Your task to perform on an android device: toggle show notifications on the lock screen Image 0: 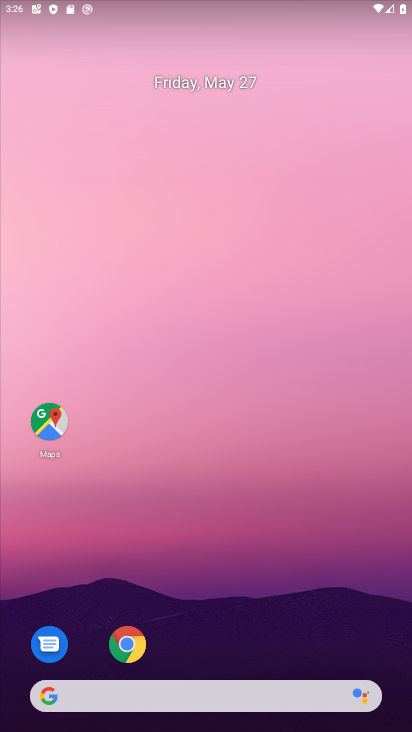
Step 0: drag from (266, 294) to (178, 19)
Your task to perform on an android device: toggle show notifications on the lock screen Image 1: 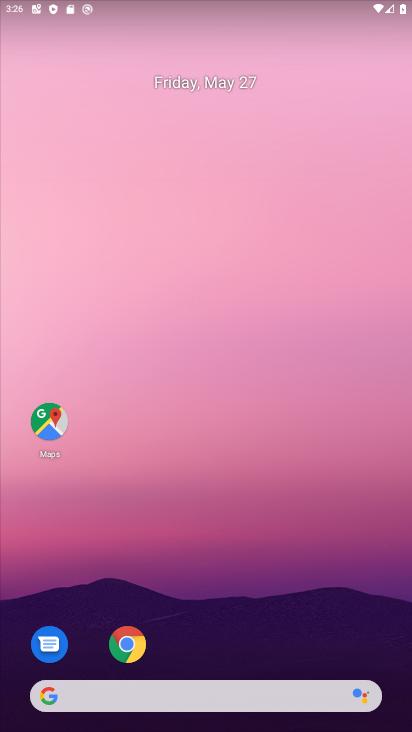
Step 1: drag from (254, 604) to (138, 63)
Your task to perform on an android device: toggle show notifications on the lock screen Image 2: 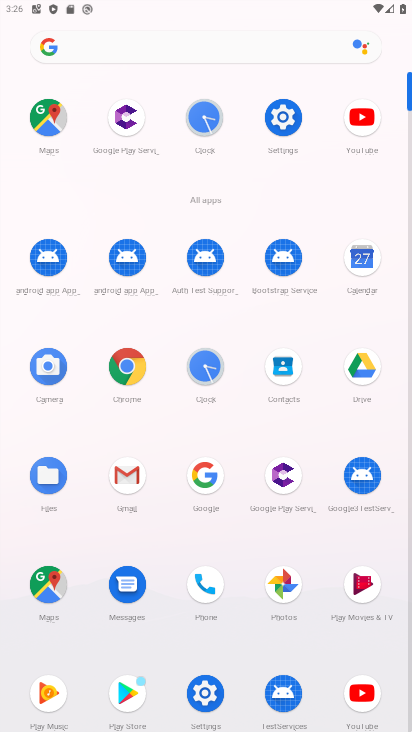
Step 2: click (293, 109)
Your task to perform on an android device: toggle show notifications on the lock screen Image 3: 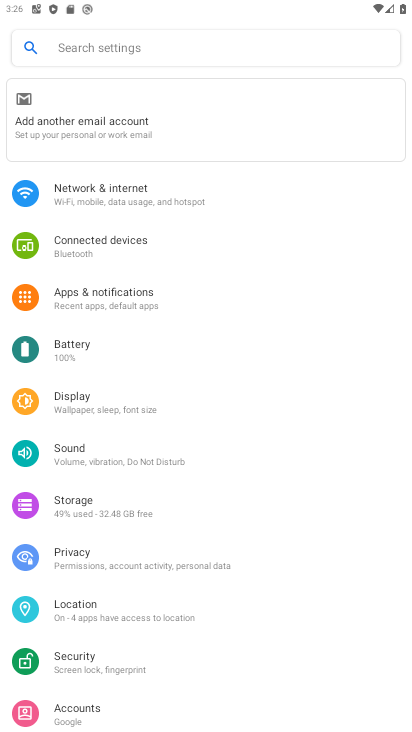
Step 3: click (149, 300)
Your task to perform on an android device: toggle show notifications on the lock screen Image 4: 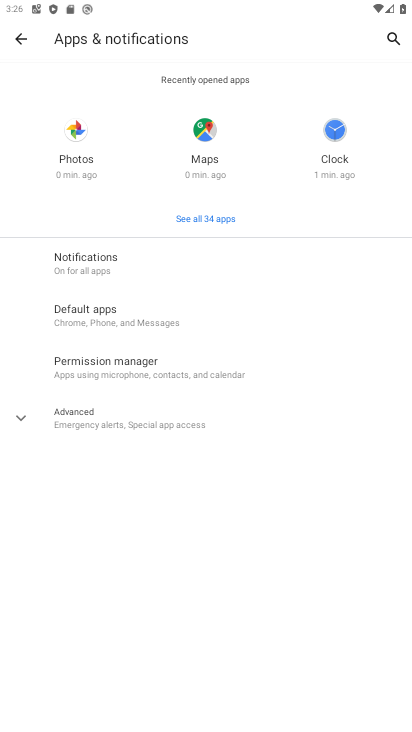
Step 4: click (134, 273)
Your task to perform on an android device: toggle show notifications on the lock screen Image 5: 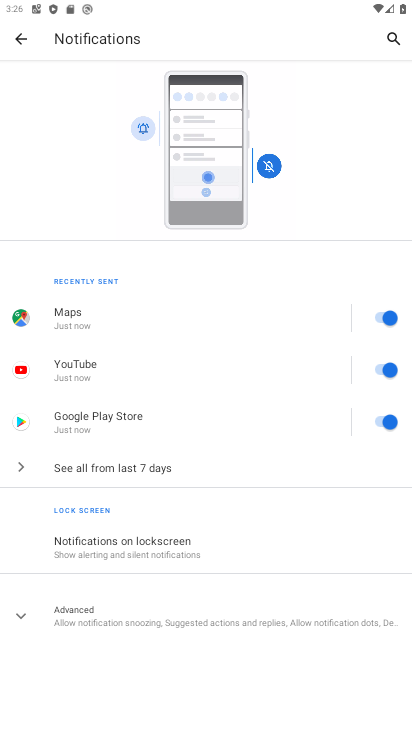
Step 5: click (217, 546)
Your task to perform on an android device: toggle show notifications on the lock screen Image 6: 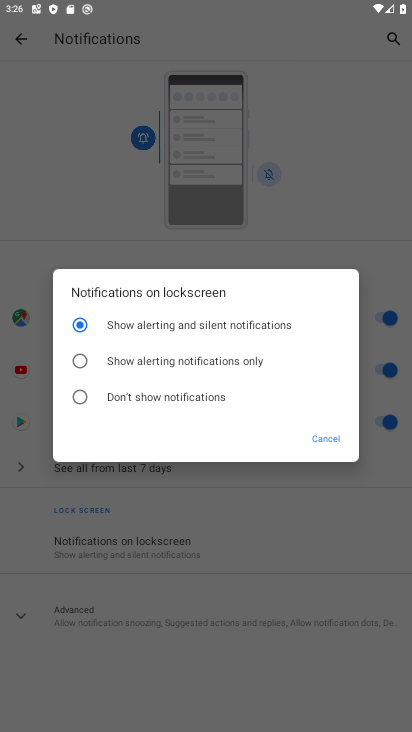
Step 6: click (177, 393)
Your task to perform on an android device: toggle show notifications on the lock screen Image 7: 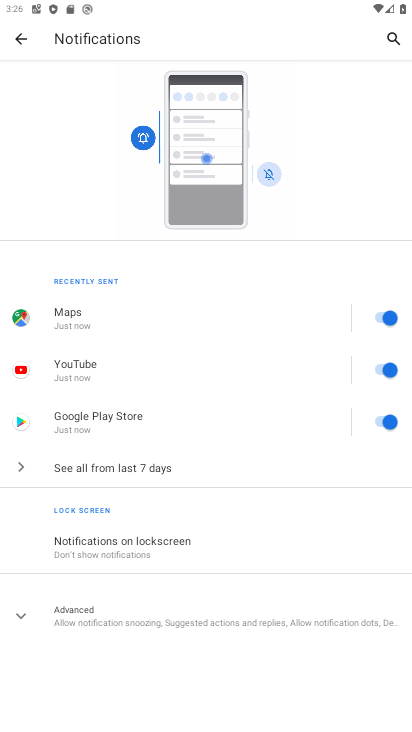
Step 7: task complete